Your task to perform on an android device: change keyboard looks Image 0: 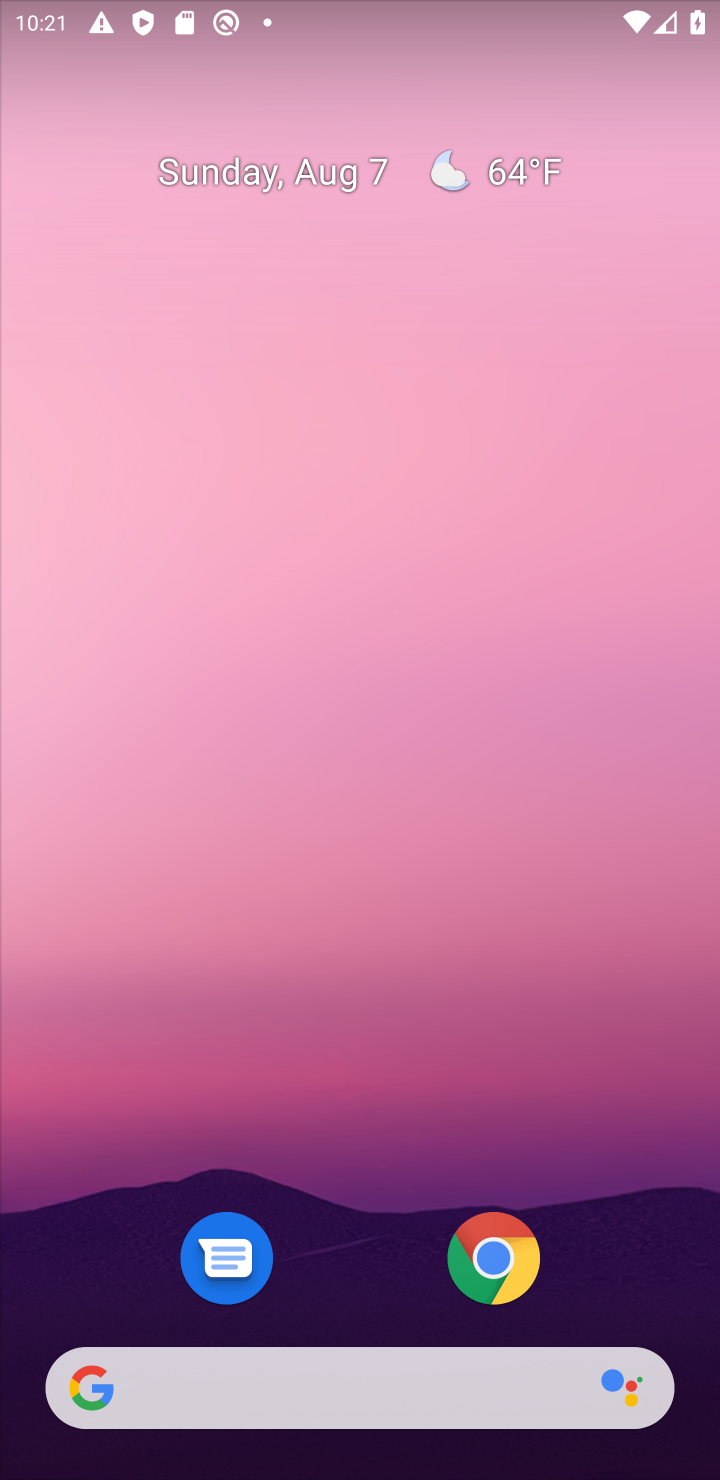
Step 0: press home button
Your task to perform on an android device: change keyboard looks Image 1: 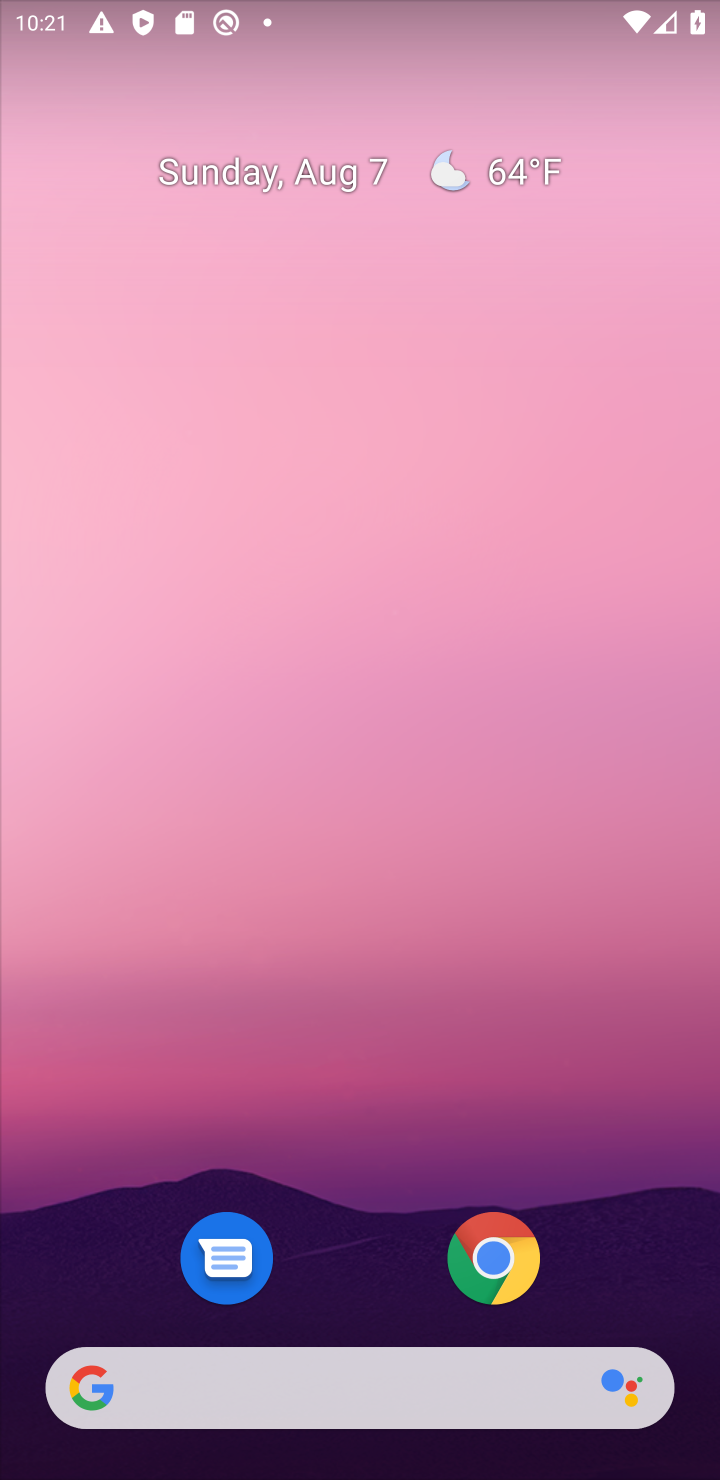
Step 1: drag from (321, 1294) to (464, 257)
Your task to perform on an android device: change keyboard looks Image 2: 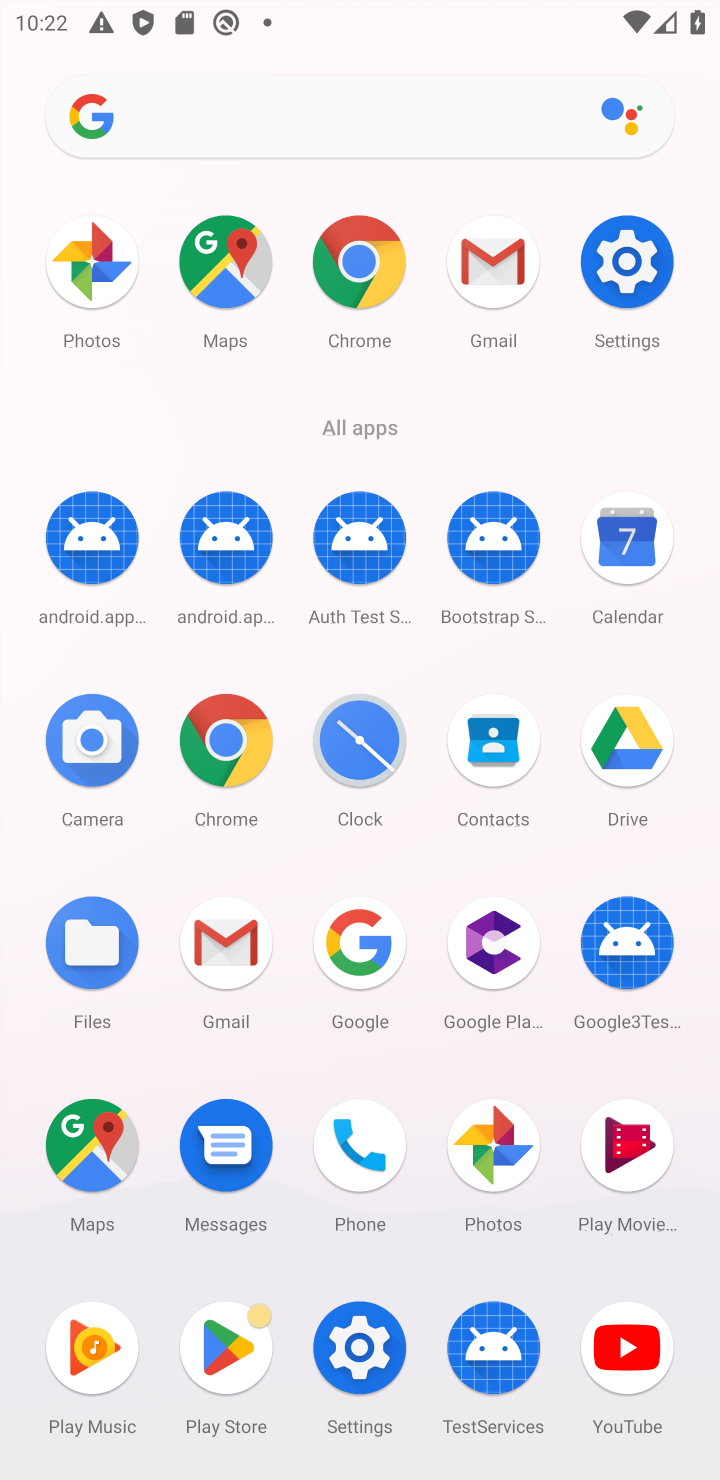
Step 2: click (641, 275)
Your task to perform on an android device: change keyboard looks Image 3: 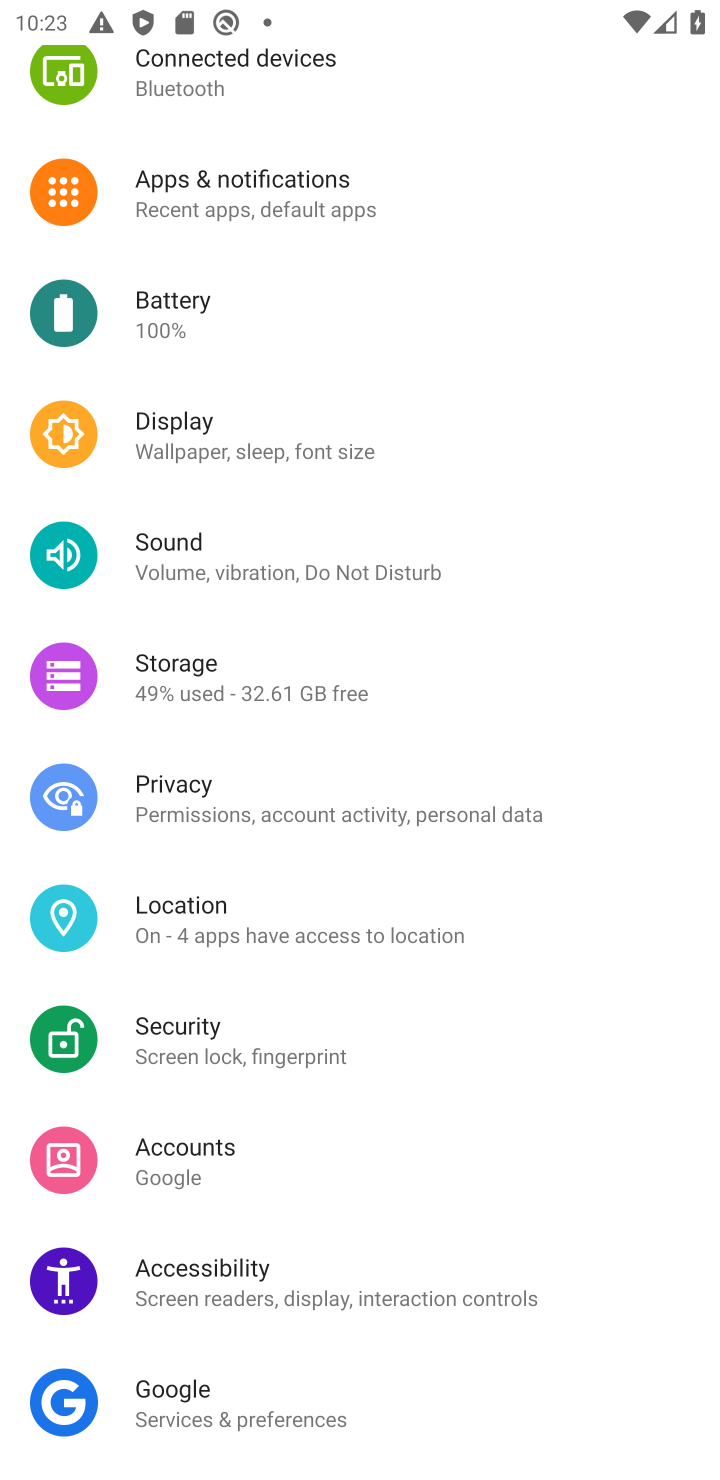
Step 3: drag from (200, 1238) to (309, 772)
Your task to perform on an android device: change keyboard looks Image 4: 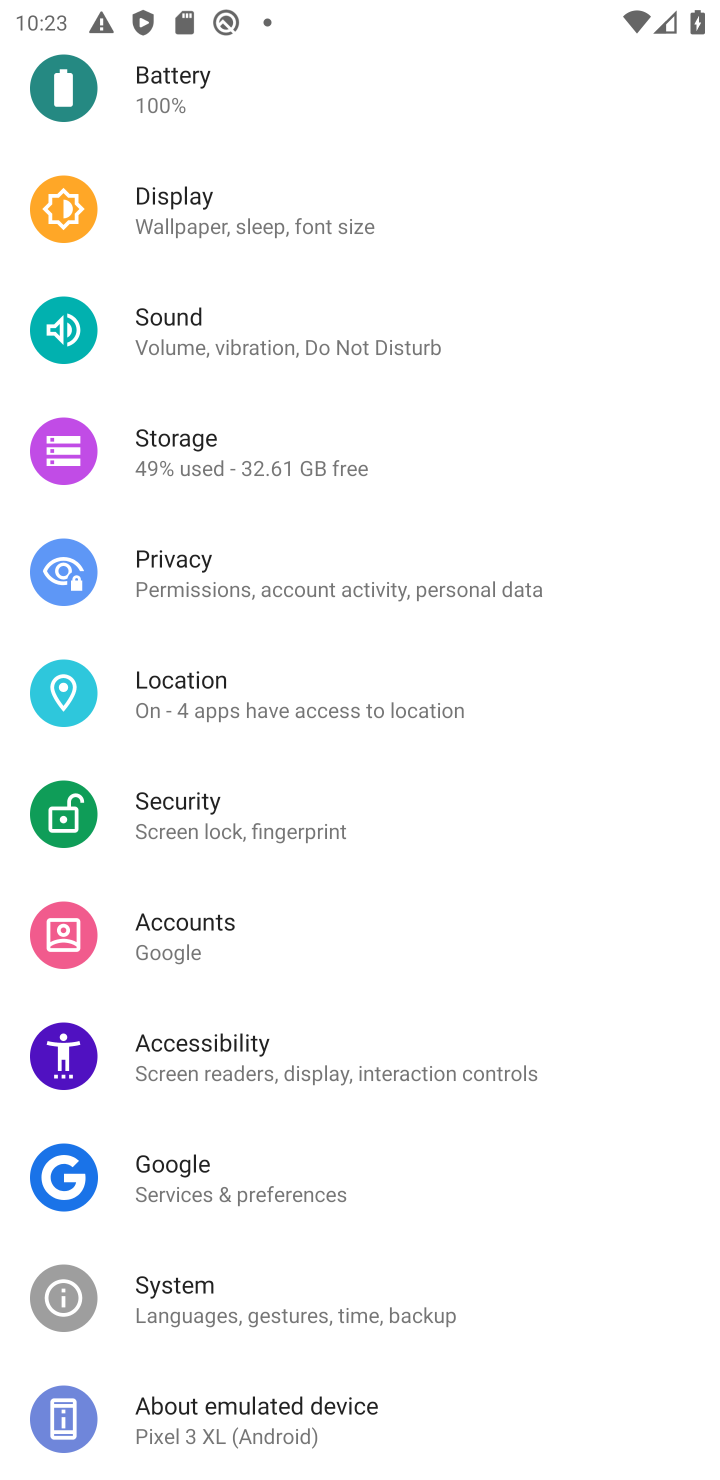
Step 4: click (199, 1306)
Your task to perform on an android device: change keyboard looks Image 5: 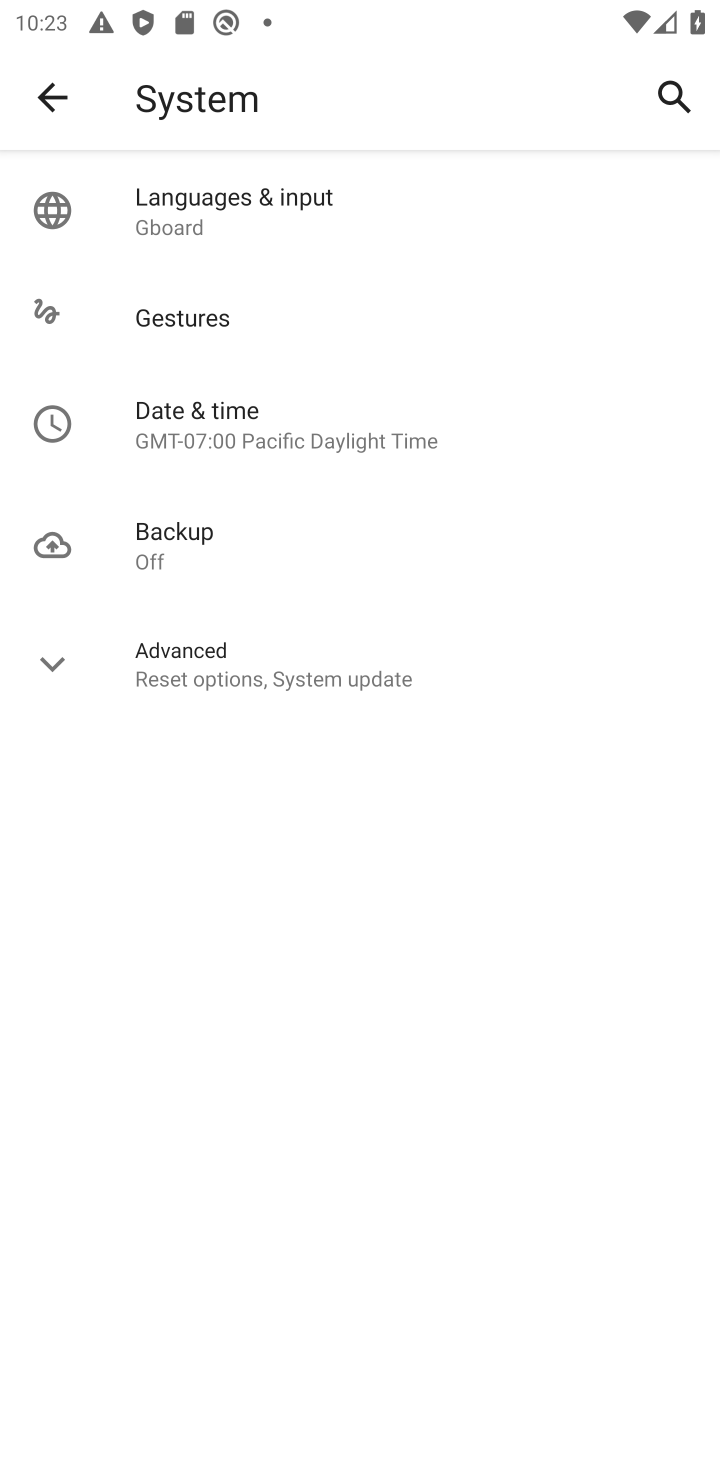
Step 5: click (217, 228)
Your task to perform on an android device: change keyboard looks Image 6: 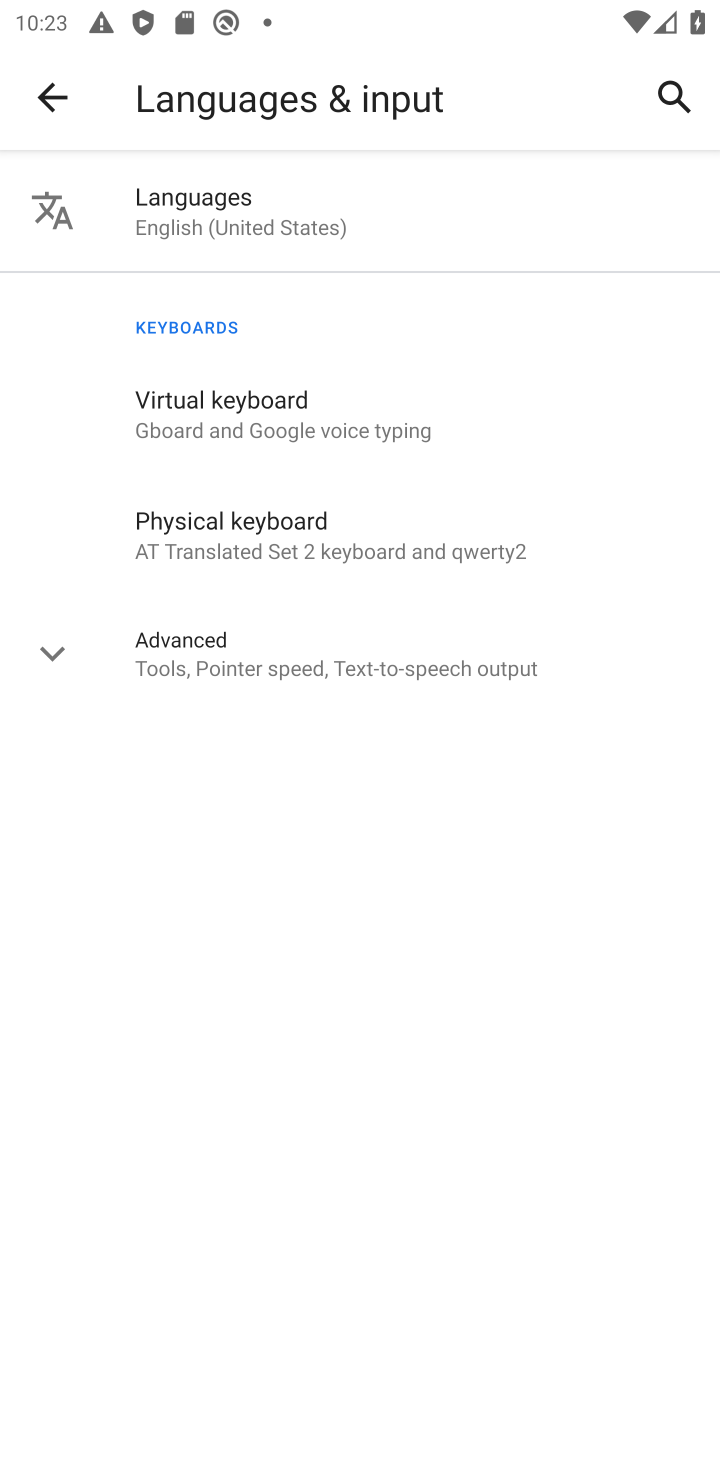
Step 6: click (206, 423)
Your task to perform on an android device: change keyboard looks Image 7: 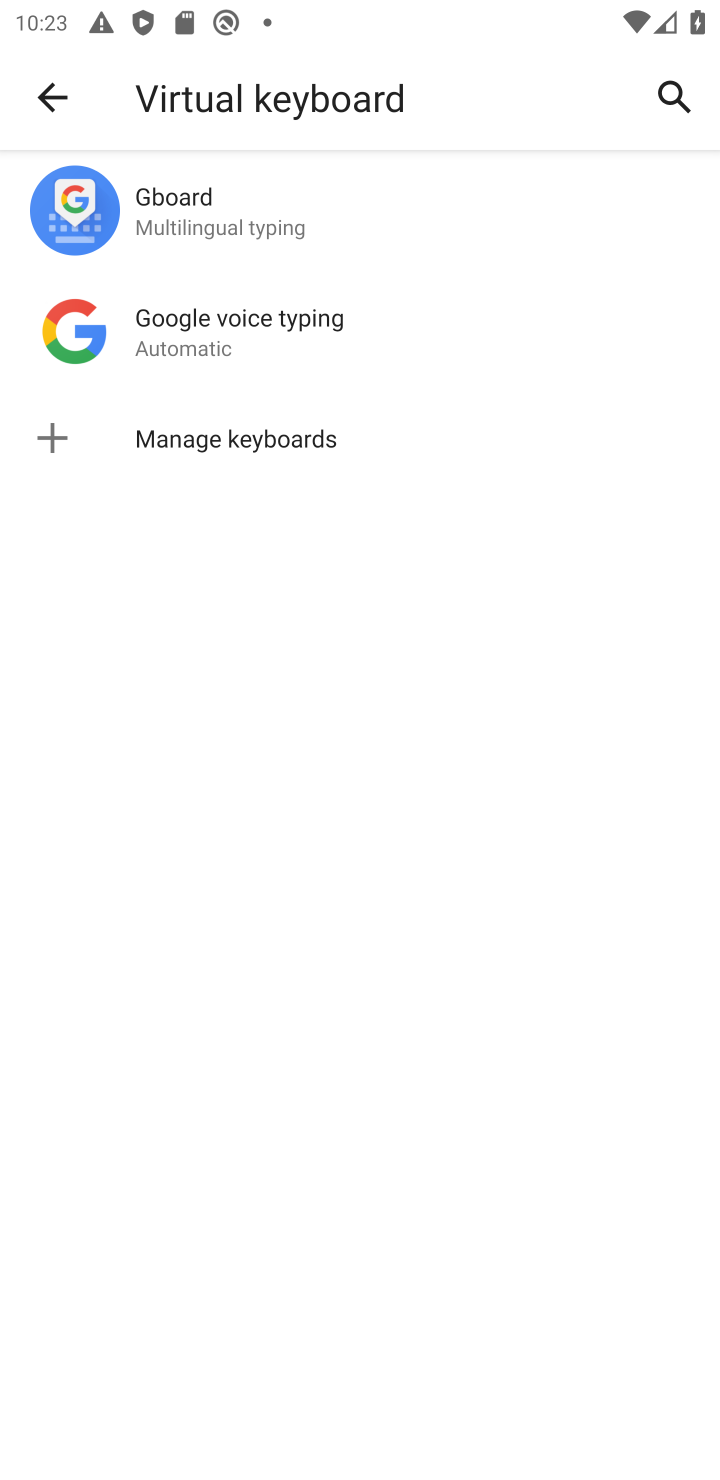
Step 7: click (243, 209)
Your task to perform on an android device: change keyboard looks Image 8: 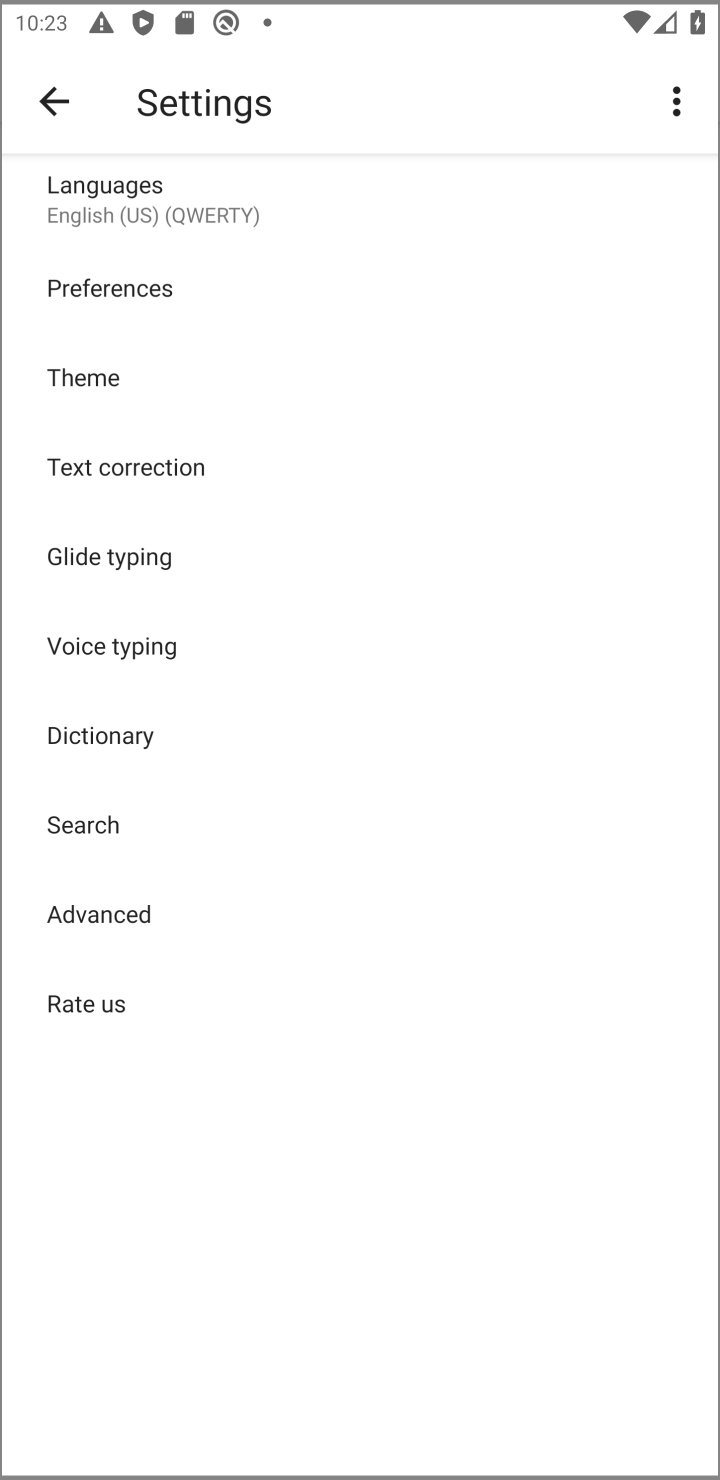
Step 8: click (220, 331)
Your task to perform on an android device: change keyboard looks Image 9: 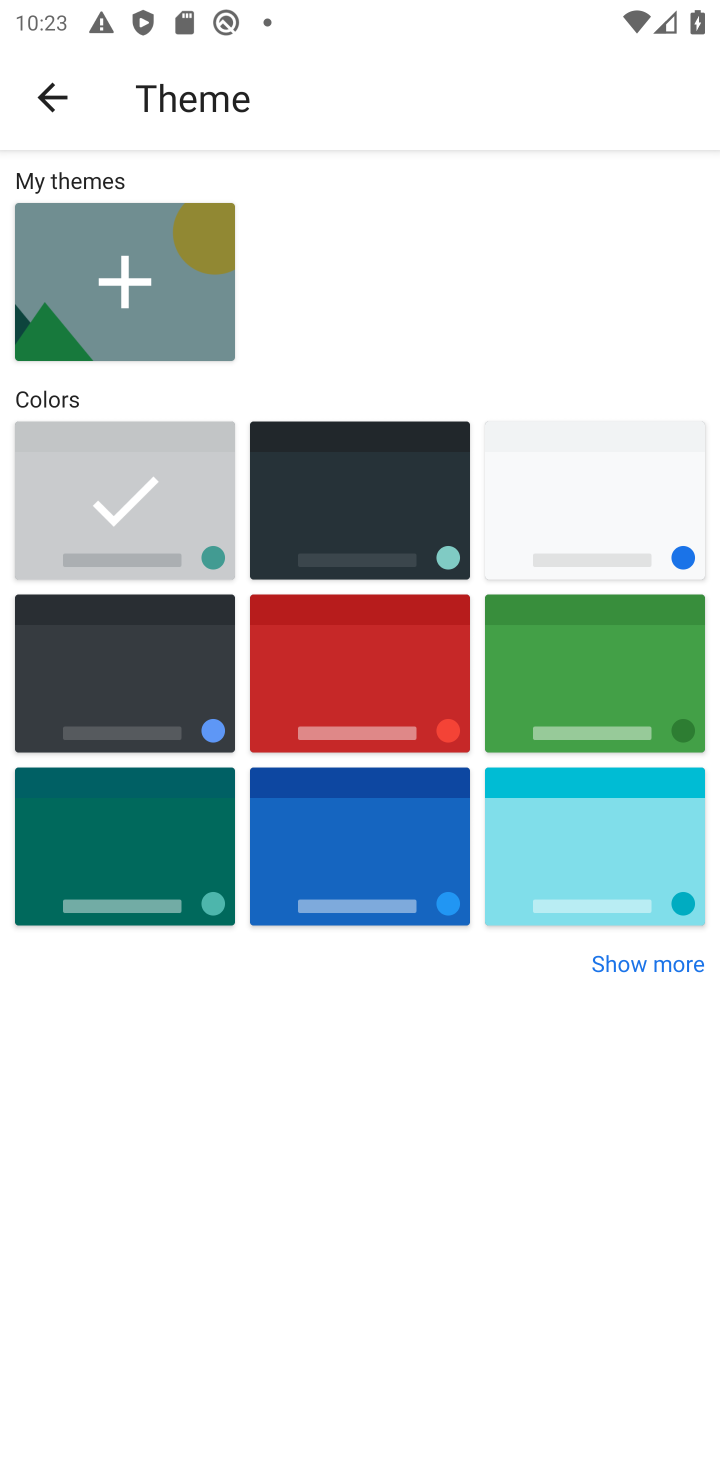
Step 9: click (367, 714)
Your task to perform on an android device: change keyboard looks Image 10: 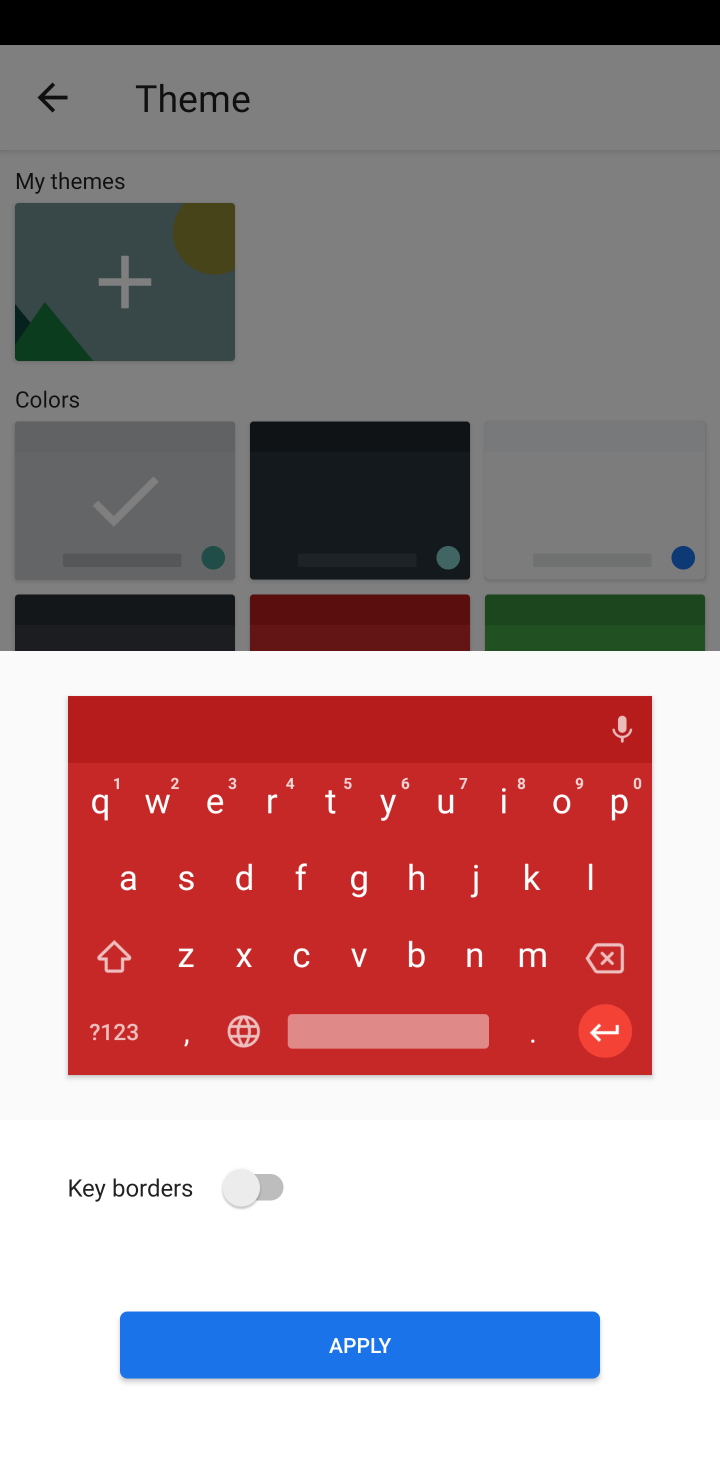
Step 10: click (332, 1359)
Your task to perform on an android device: change keyboard looks Image 11: 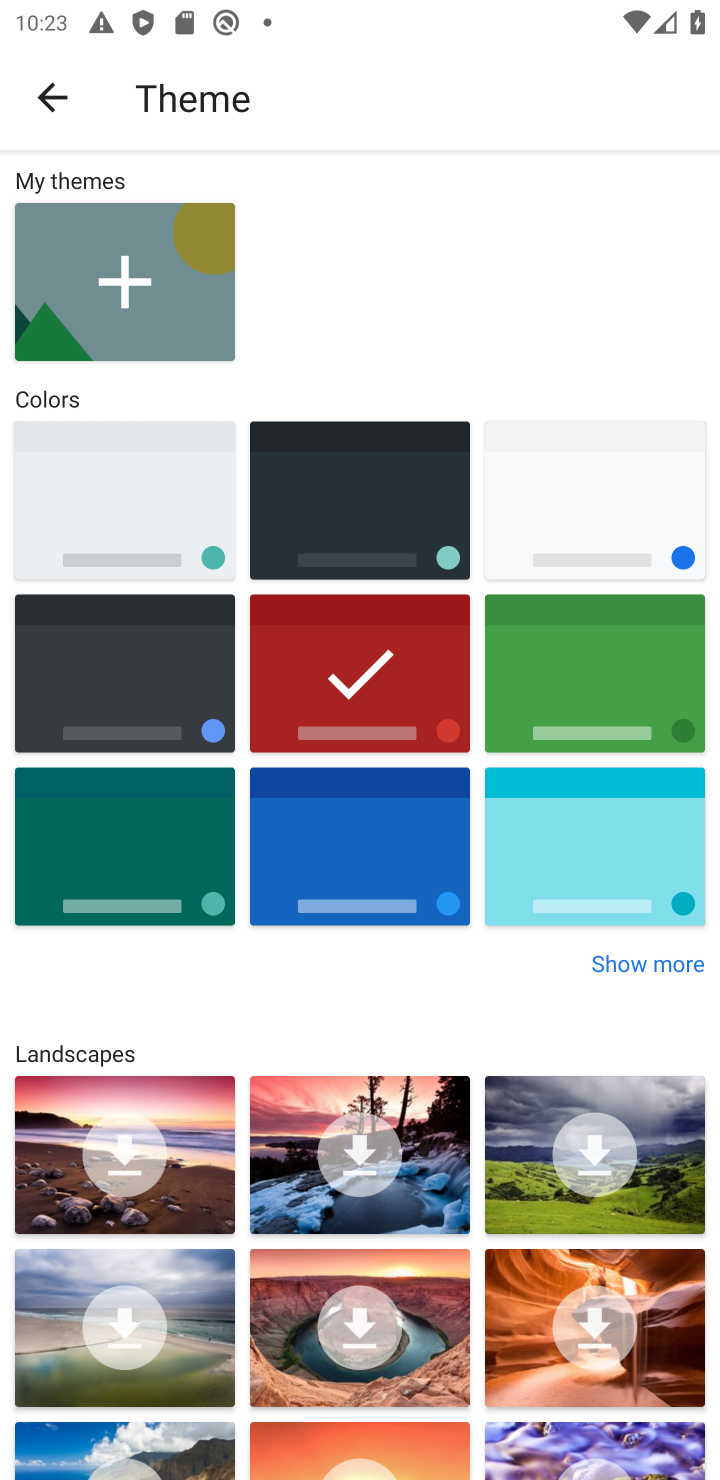
Step 11: task complete